Your task to perform on an android device: Open the calendar app, open the side menu, and click the "Day" option Image 0: 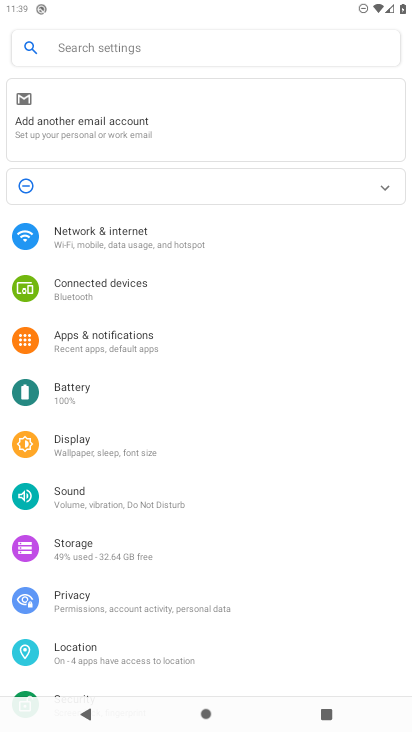
Step 0: drag from (148, 632) to (215, 372)
Your task to perform on an android device: Open the calendar app, open the side menu, and click the "Day" option Image 1: 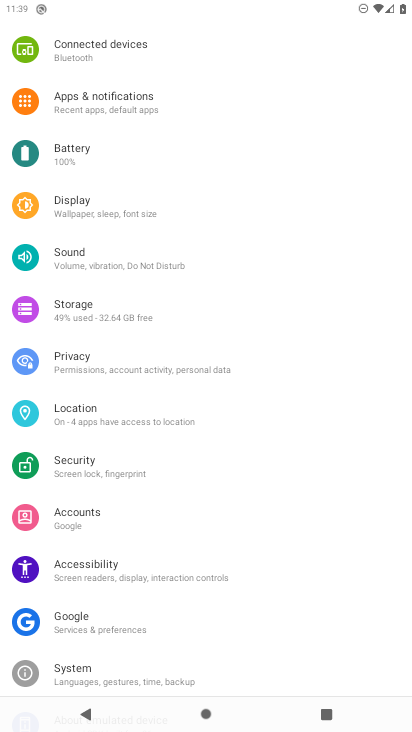
Step 1: press home button
Your task to perform on an android device: Open the calendar app, open the side menu, and click the "Day" option Image 2: 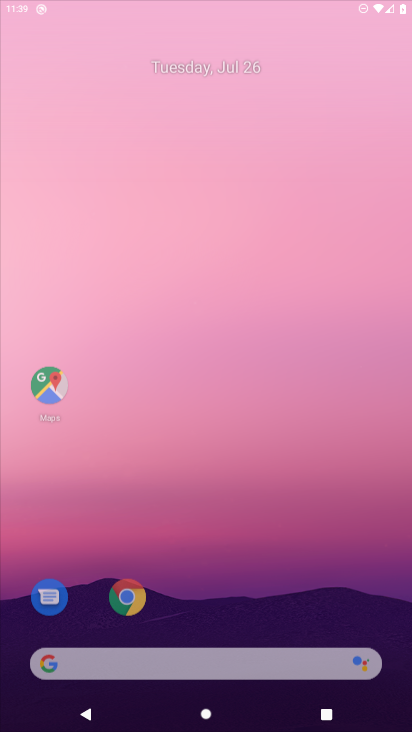
Step 2: drag from (231, 595) to (301, 113)
Your task to perform on an android device: Open the calendar app, open the side menu, and click the "Day" option Image 3: 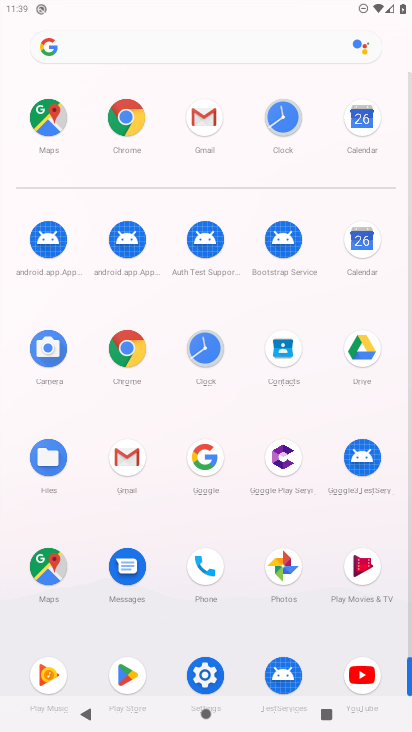
Step 3: click (359, 237)
Your task to perform on an android device: Open the calendar app, open the side menu, and click the "Day" option Image 4: 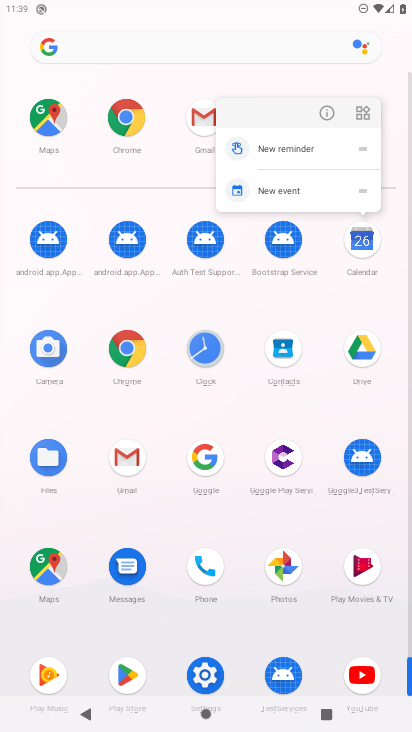
Step 4: click (325, 109)
Your task to perform on an android device: Open the calendar app, open the side menu, and click the "Day" option Image 5: 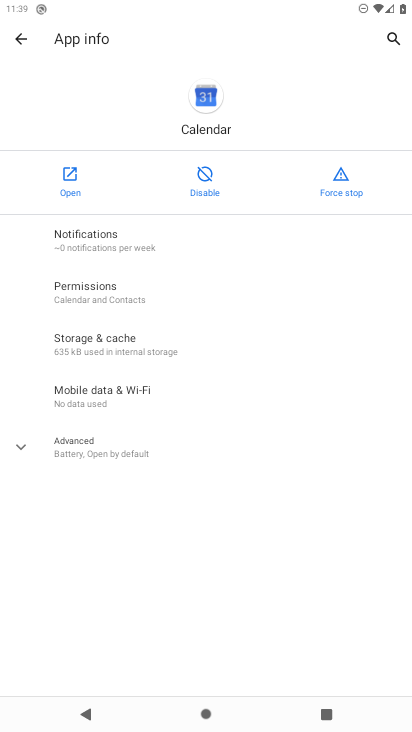
Step 5: click (71, 188)
Your task to perform on an android device: Open the calendar app, open the side menu, and click the "Day" option Image 6: 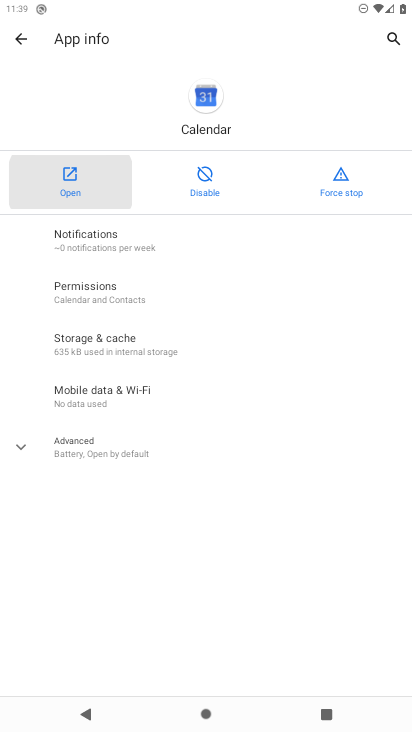
Step 6: click (71, 188)
Your task to perform on an android device: Open the calendar app, open the side menu, and click the "Day" option Image 7: 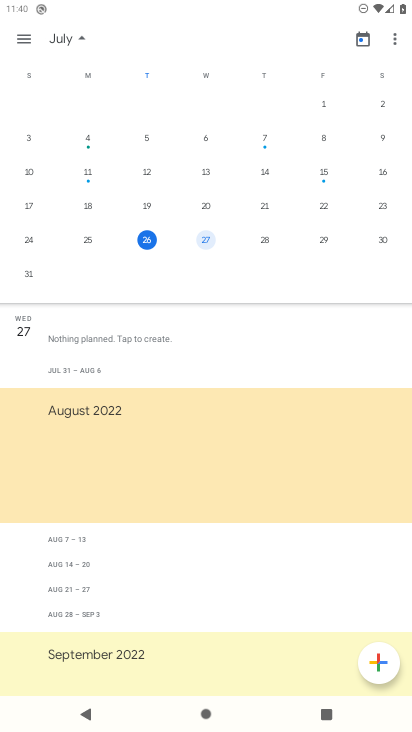
Step 7: drag from (203, 618) to (226, 222)
Your task to perform on an android device: Open the calendar app, open the side menu, and click the "Day" option Image 8: 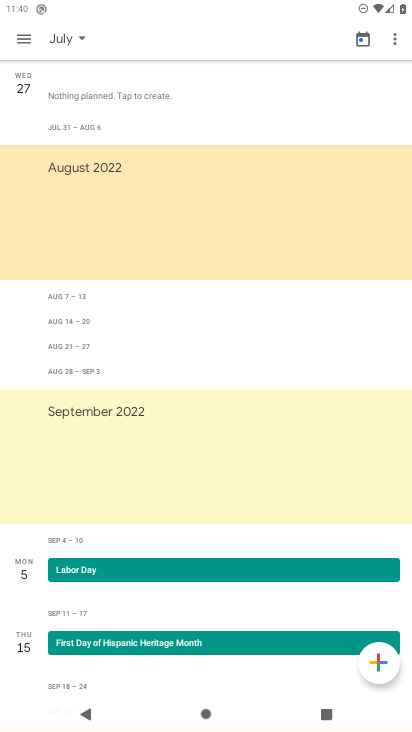
Step 8: drag from (163, 240) to (229, 662)
Your task to perform on an android device: Open the calendar app, open the side menu, and click the "Day" option Image 9: 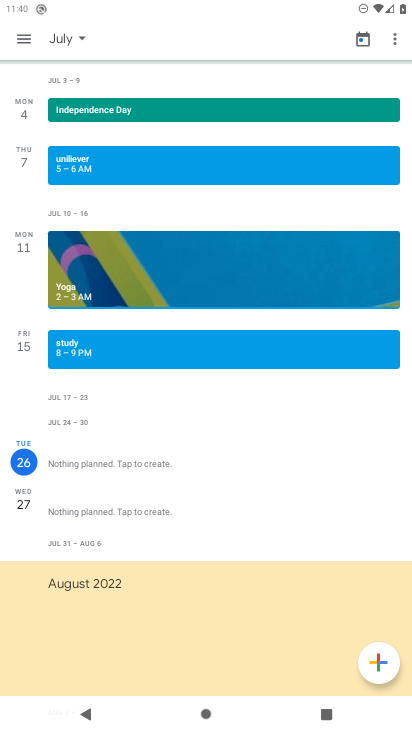
Step 9: click (24, 42)
Your task to perform on an android device: Open the calendar app, open the side menu, and click the "Day" option Image 10: 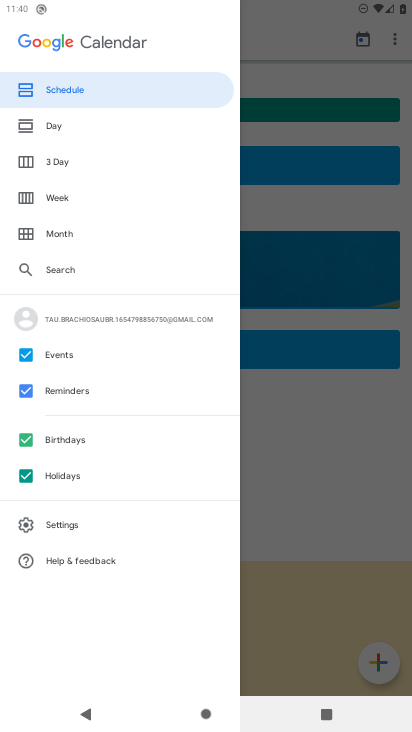
Step 10: click (75, 122)
Your task to perform on an android device: Open the calendar app, open the side menu, and click the "Day" option Image 11: 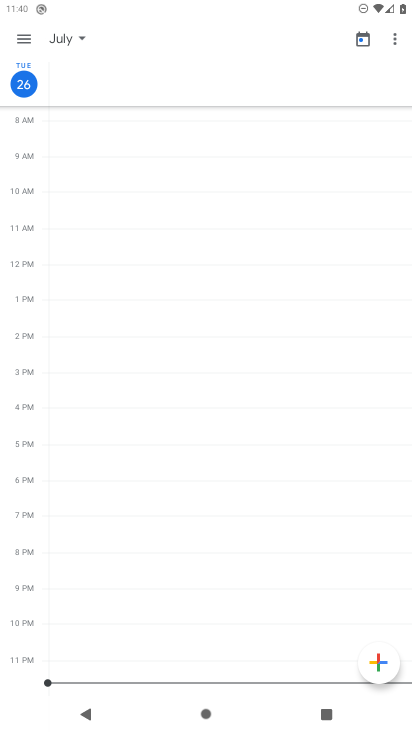
Step 11: task complete